Your task to perform on an android device: check out phone information Image 0: 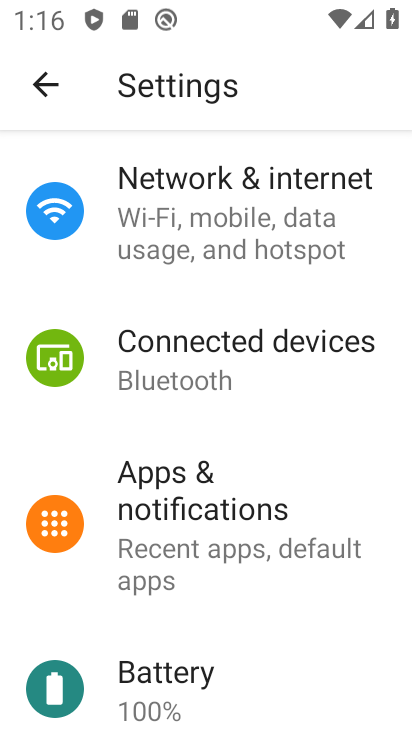
Step 0: press home button
Your task to perform on an android device: check out phone information Image 1: 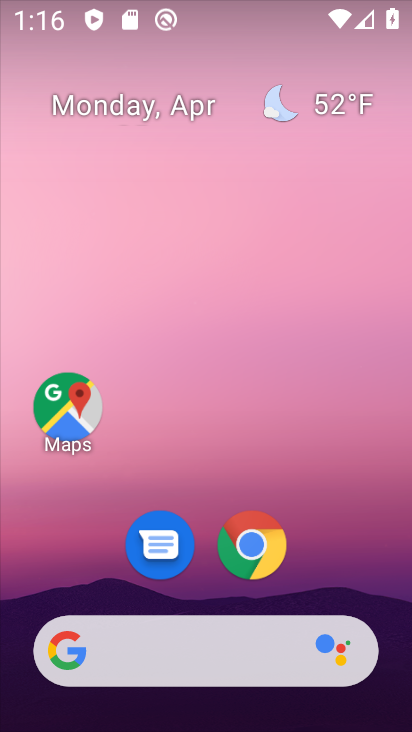
Step 1: drag from (203, 724) to (199, 103)
Your task to perform on an android device: check out phone information Image 2: 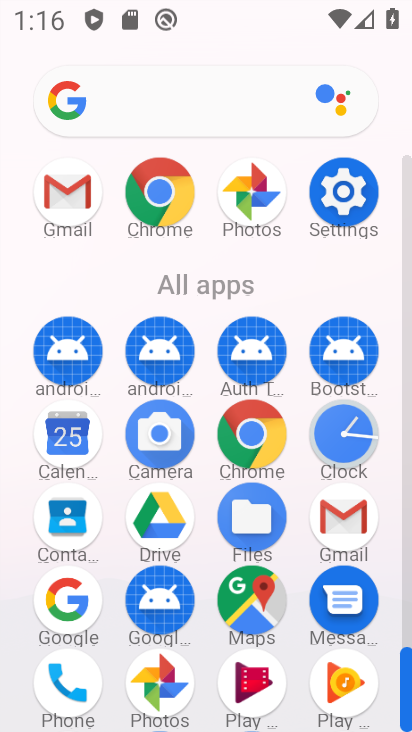
Step 2: click (344, 184)
Your task to perform on an android device: check out phone information Image 3: 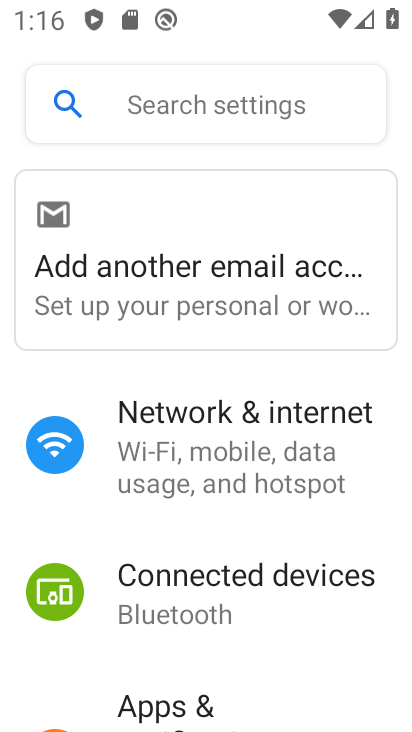
Step 3: drag from (175, 652) to (150, 232)
Your task to perform on an android device: check out phone information Image 4: 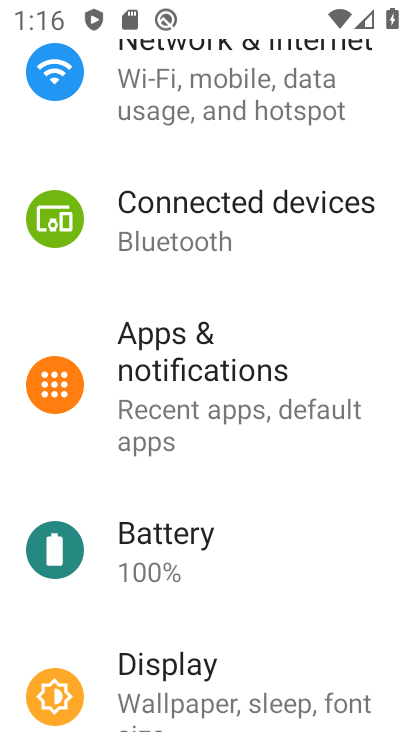
Step 4: drag from (218, 696) to (203, 270)
Your task to perform on an android device: check out phone information Image 5: 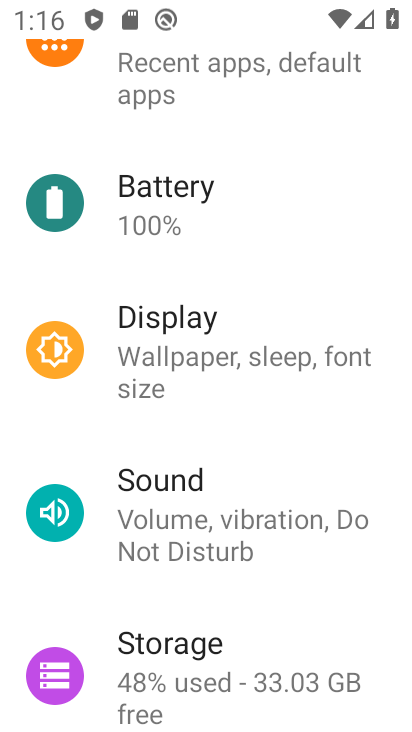
Step 5: drag from (240, 714) to (244, 291)
Your task to perform on an android device: check out phone information Image 6: 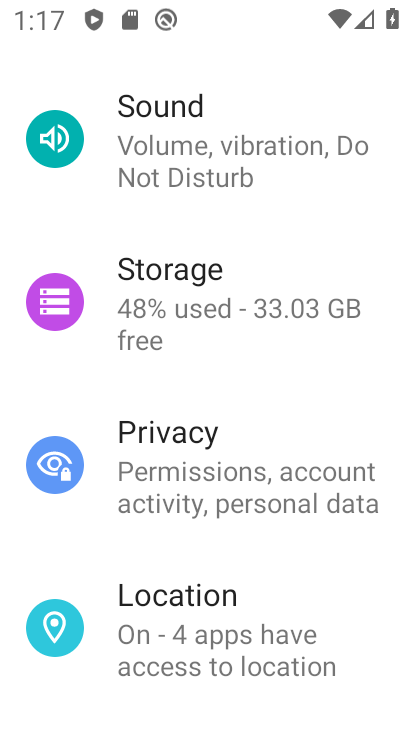
Step 6: drag from (259, 636) to (230, 165)
Your task to perform on an android device: check out phone information Image 7: 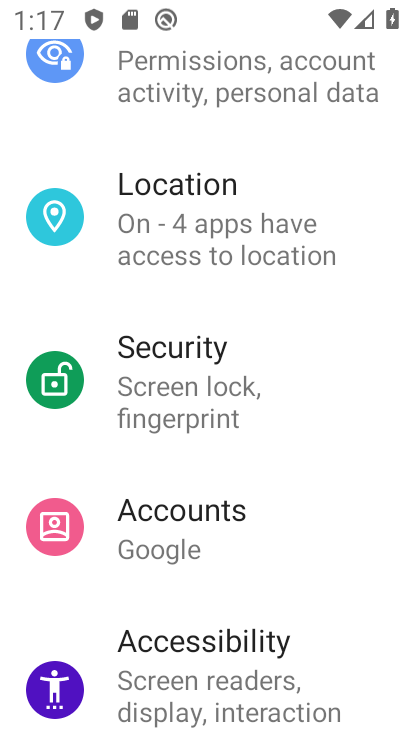
Step 7: drag from (233, 689) to (216, 255)
Your task to perform on an android device: check out phone information Image 8: 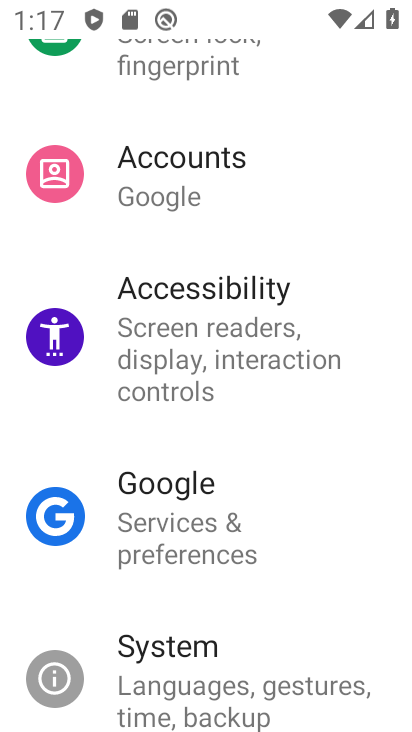
Step 8: drag from (255, 696) to (244, 260)
Your task to perform on an android device: check out phone information Image 9: 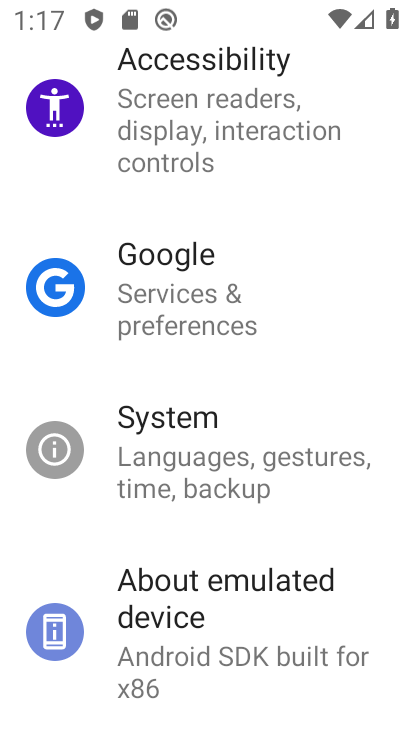
Step 9: drag from (240, 679) to (239, 373)
Your task to perform on an android device: check out phone information Image 10: 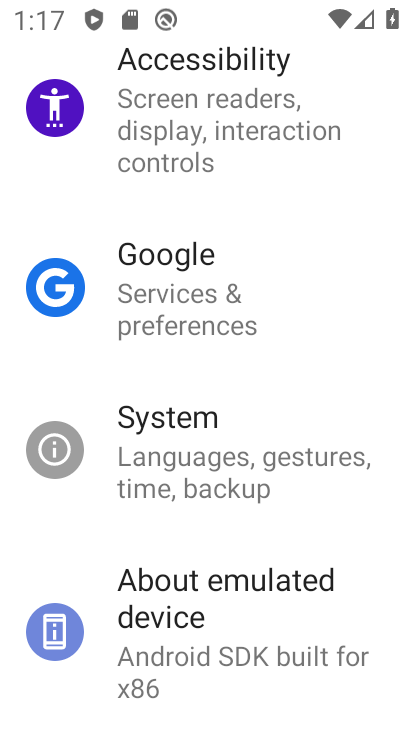
Step 10: click (181, 640)
Your task to perform on an android device: check out phone information Image 11: 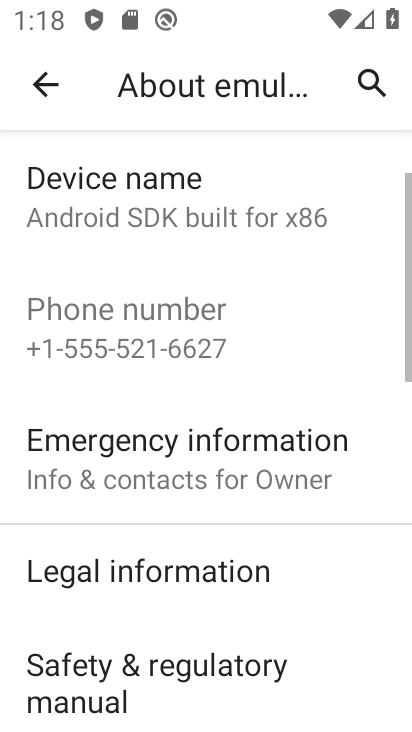
Step 11: task complete